Your task to perform on an android device: What's on my calendar today? Image 0: 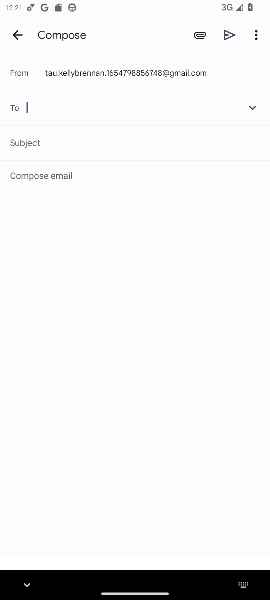
Step 0: press home button
Your task to perform on an android device: What's on my calendar today? Image 1: 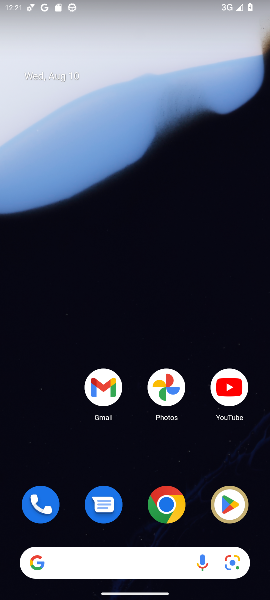
Step 1: drag from (133, 528) to (6, 176)
Your task to perform on an android device: What's on my calendar today? Image 2: 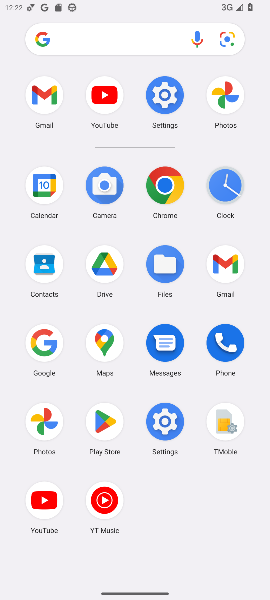
Step 2: click (51, 187)
Your task to perform on an android device: What's on my calendar today? Image 3: 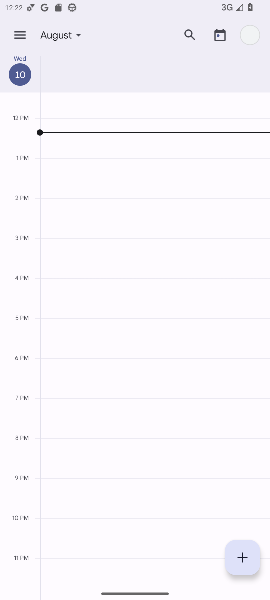
Step 3: click (74, 29)
Your task to perform on an android device: What's on my calendar today? Image 4: 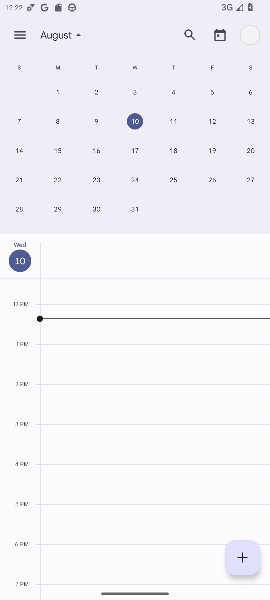
Step 4: click (134, 117)
Your task to perform on an android device: What's on my calendar today? Image 5: 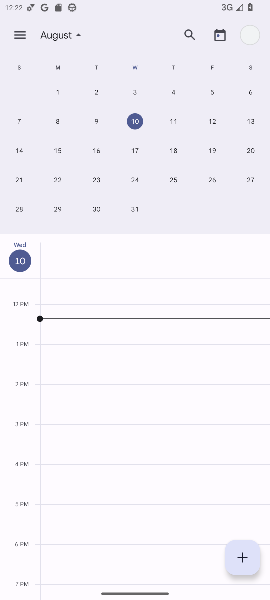
Step 5: task complete